Your task to perform on an android device: Open CNN.com Image 0: 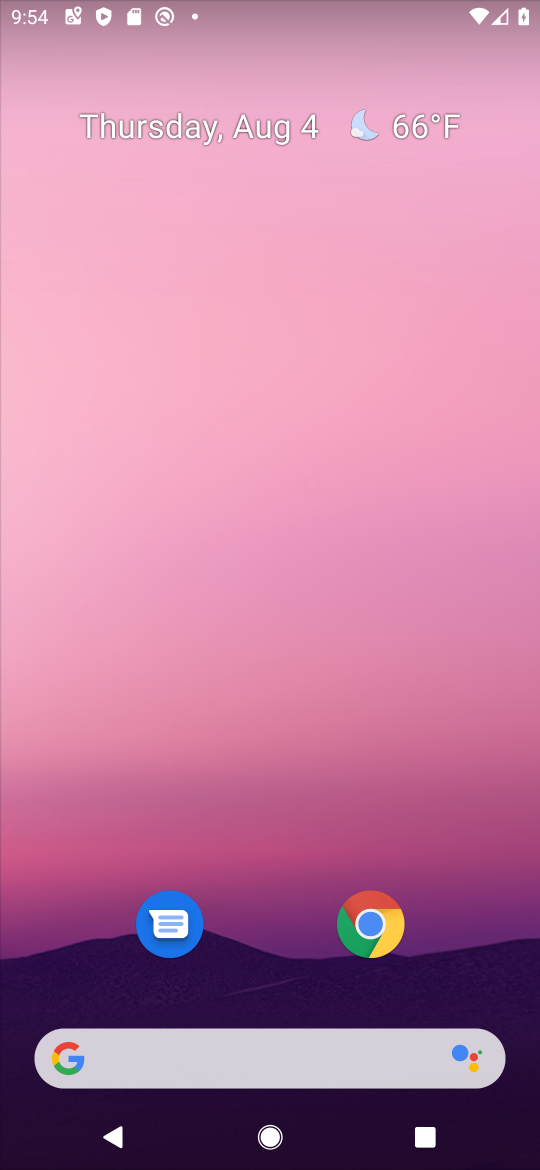
Step 0: click (350, 1052)
Your task to perform on an android device: Open CNN.com Image 1: 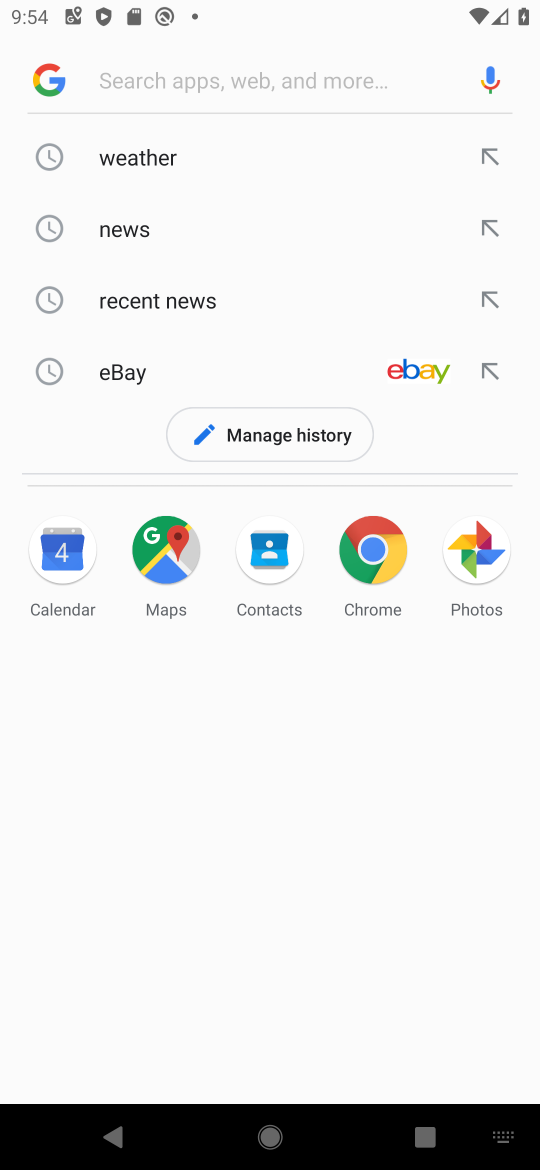
Step 1: press enter
Your task to perform on an android device: Open CNN.com Image 2: 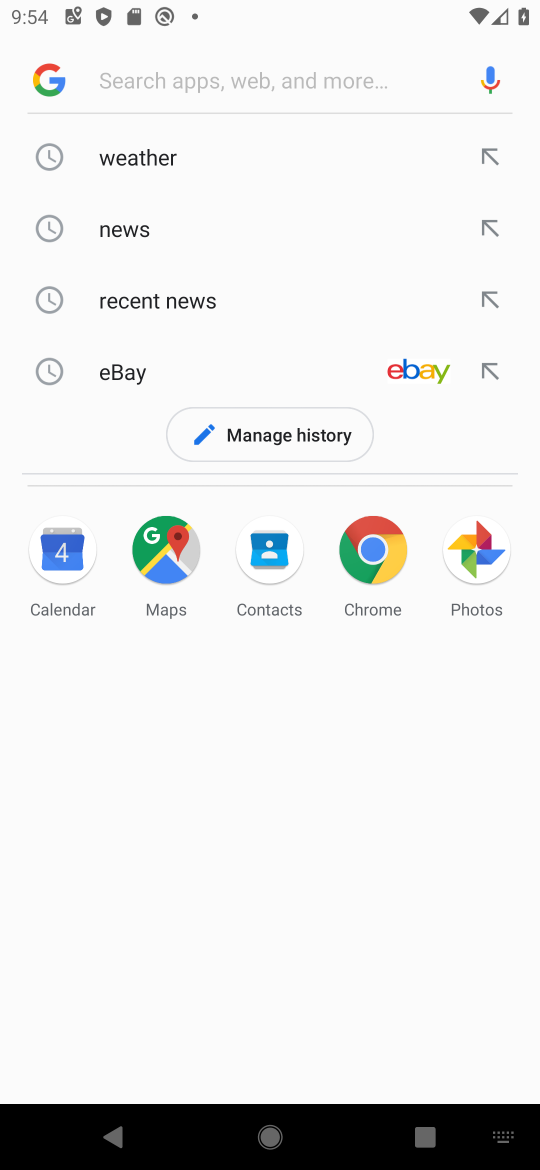
Step 2: type "CNN.com"
Your task to perform on an android device: Open CNN.com Image 3: 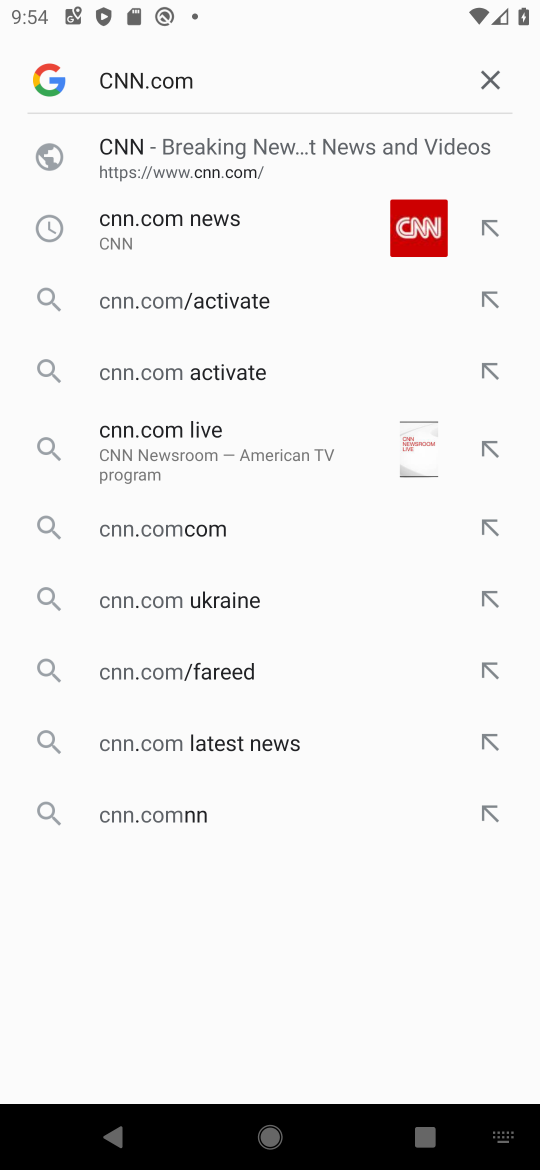
Step 3: press enter
Your task to perform on an android device: Open CNN.com Image 4: 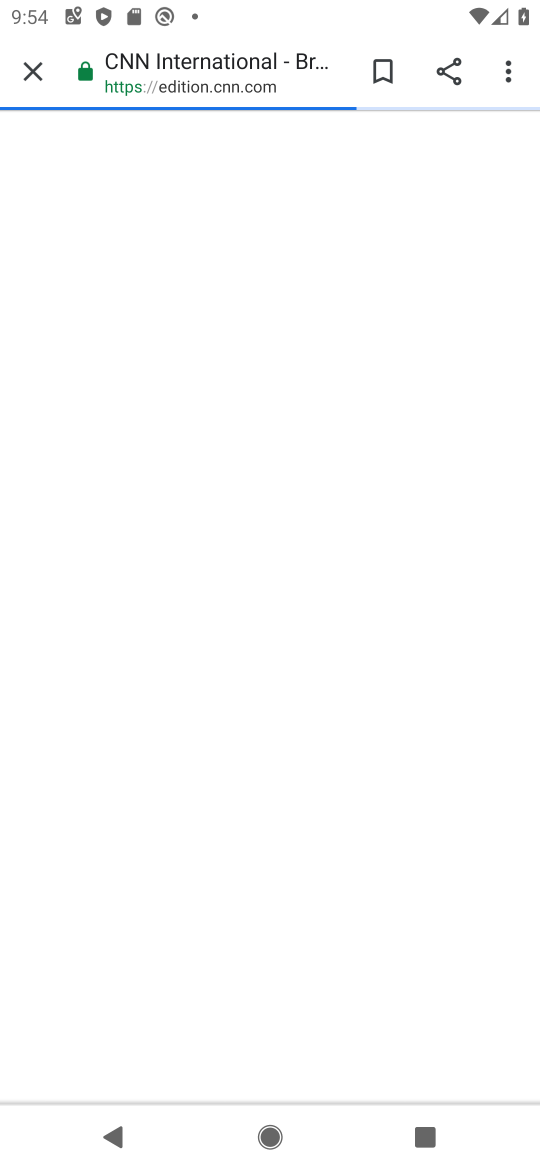
Step 4: task complete